Your task to perform on an android device: delete a single message in the gmail app Image 0: 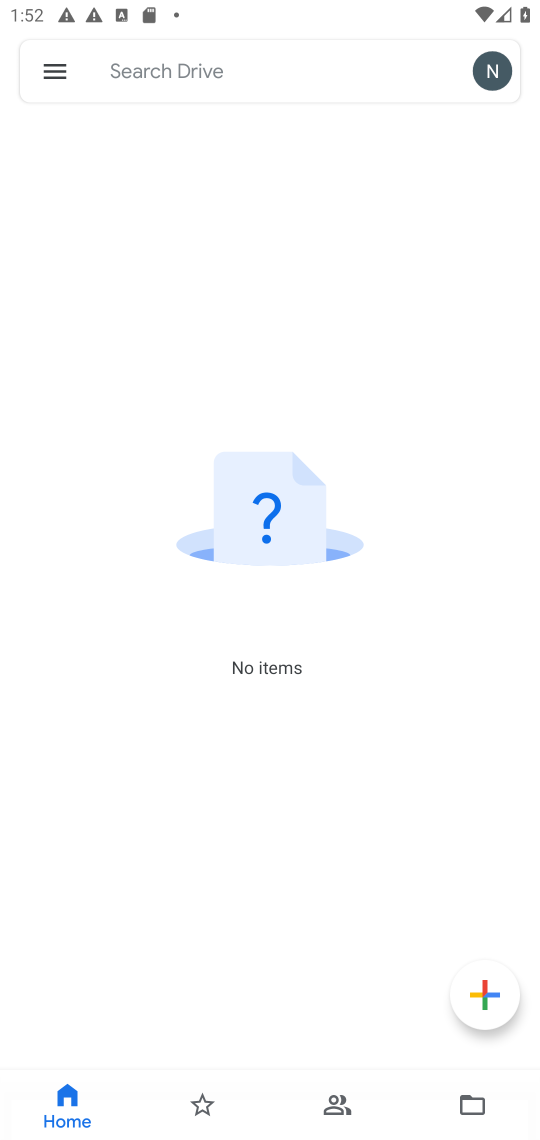
Step 0: press home button
Your task to perform on an android device: delete a single message in the gmail app Image 1: 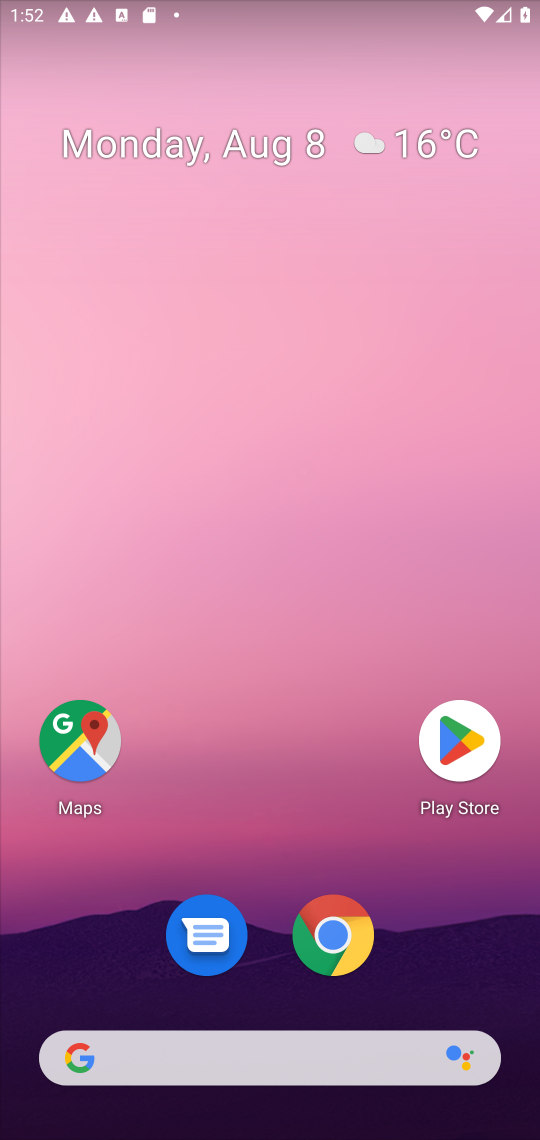
Step 1: drag from (338, 1046) to (297, 686)
Your task to perform on an android device: delete a single message in the gmail app Image 2: 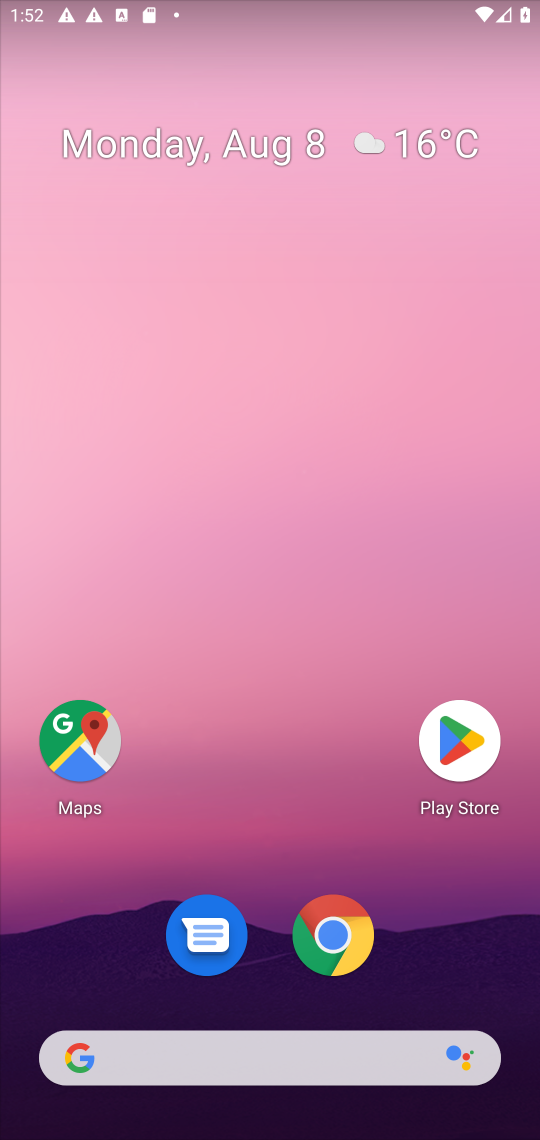
Step 2: drag from (380, 1065) to (484, 13)
Your task to perform on an android device: delete a single message in the gmail app Image 3: 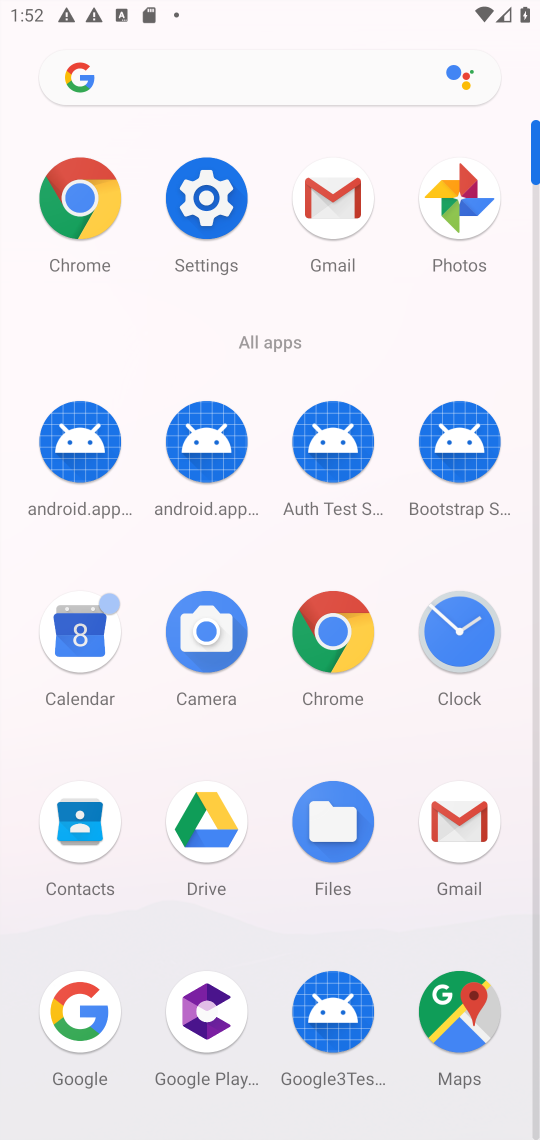
Step 3: click (470, 826)
Your task to perform on an android device: delete a single message in the gmail app Image 4: 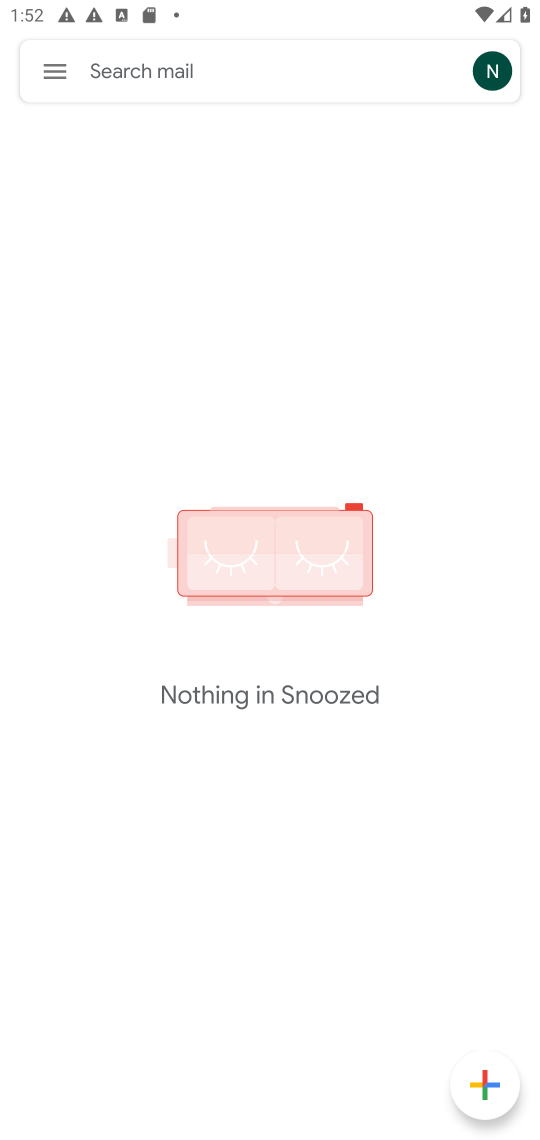
Step 4: click (58, 72)
Your task to perform on an android device: delete a single message in the gmail app Image 5: 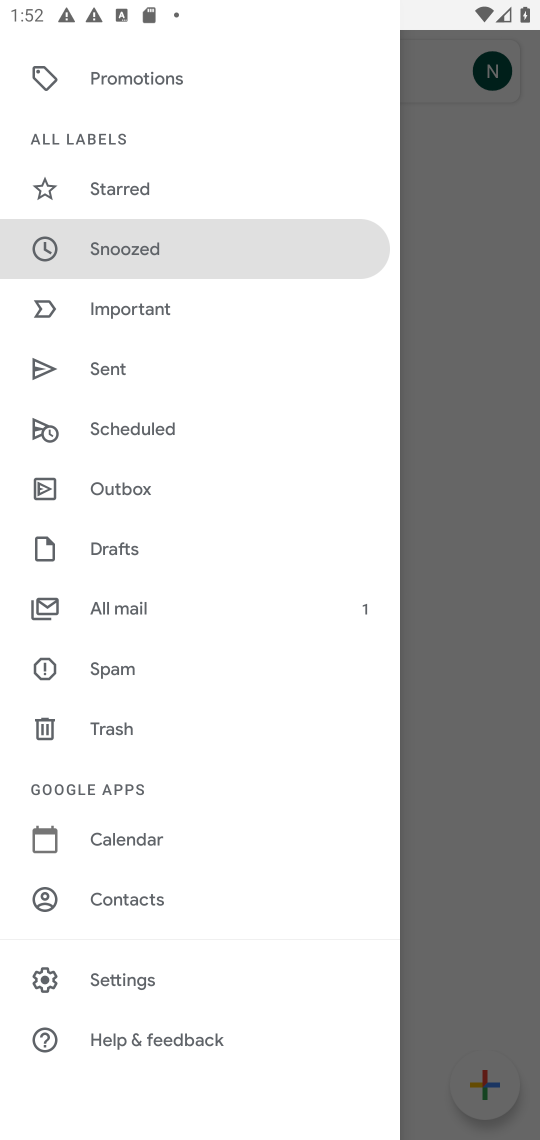
Step 5: task complete